Your task to perform on an android device: change text size in settings app Image 0: 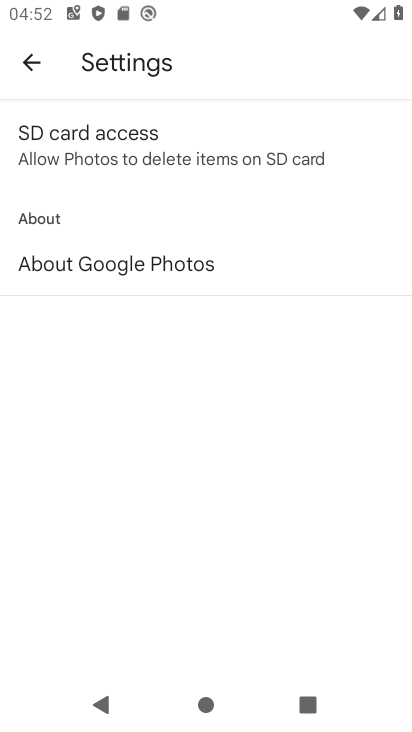
Step 0: press home button
Your task to perform on an android device: change text size in settings app Image 1: 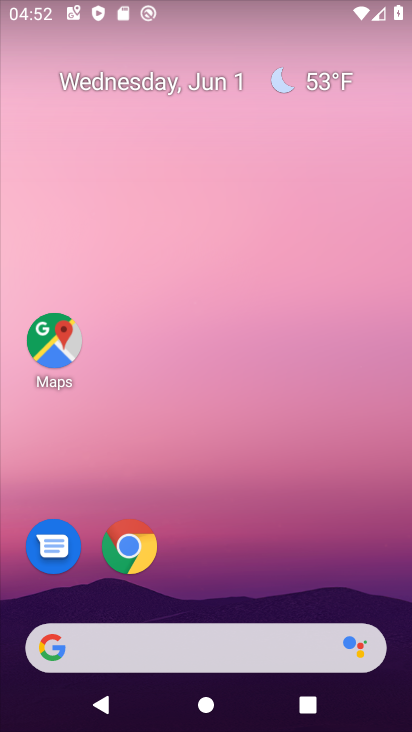
Step 1: drag from (253, 505) to (205, 153)
Your task to perform on an android device: change text size in settings app Image 2: 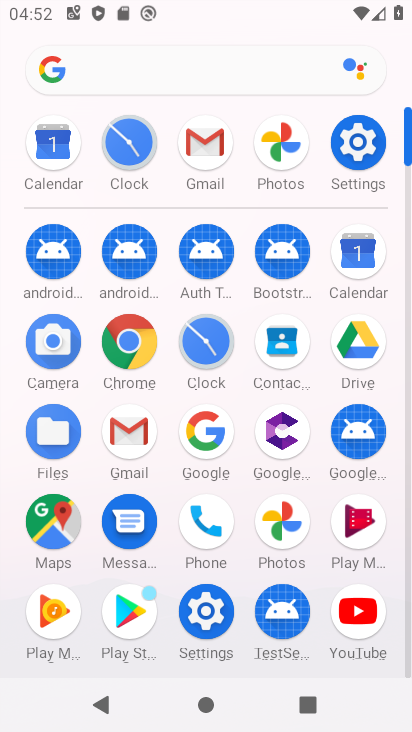
Step 2: click (360, 140)
Your task to perform on an android device: change text size in settings app Image 3: 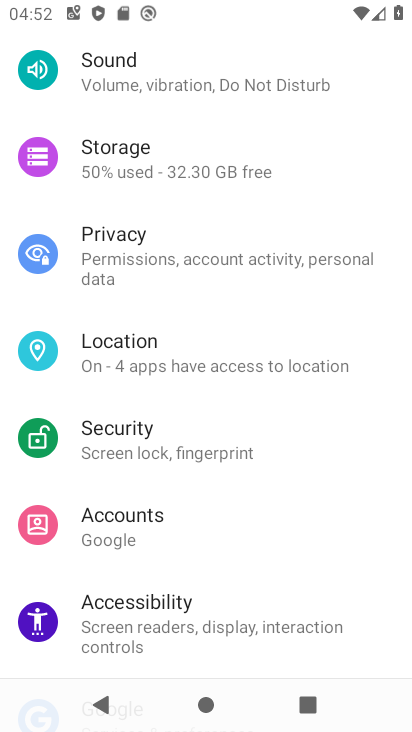
Step 3: drag from (142, 183) to (158, 528)
Your task to perform on an android device: change text size in settings app Image 4: 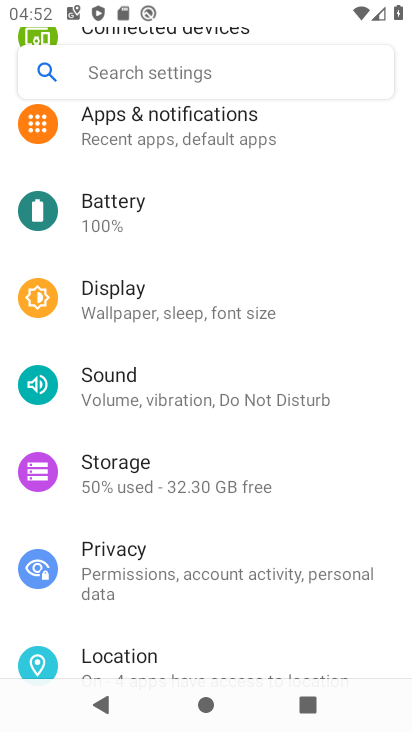
Step 4: click (98, 295)
Your task to perform on an android device: change text size in settings app Image 5: 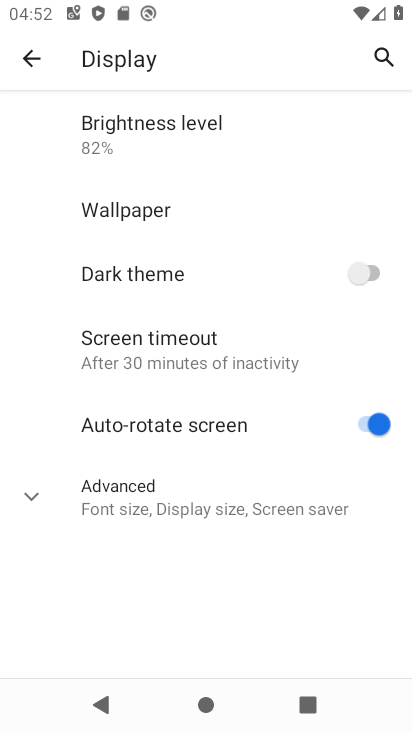
Step 5: click (79, 507)
Your task to perform on an android device: change text size in settings app Image 6: 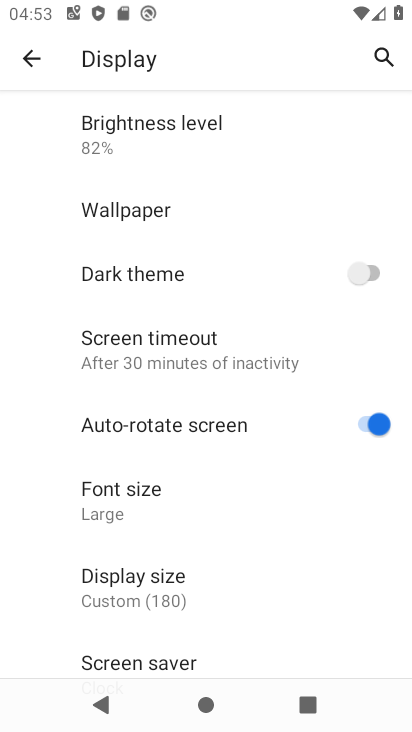
Step 6: click (123, 499)
Your task to perform on an android device: change text size in settings app Image 7: 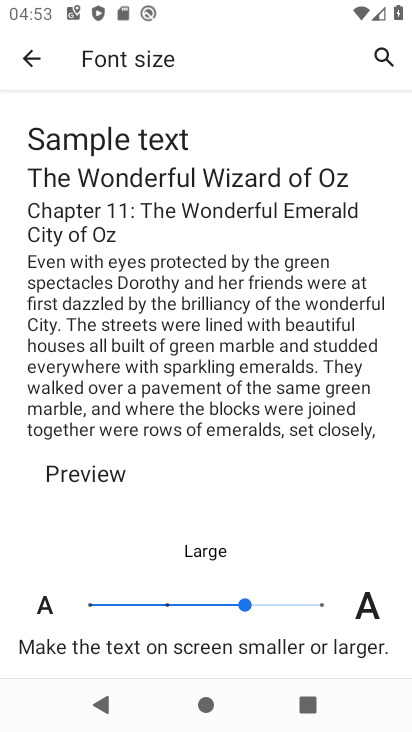
Step 7: click (281, 605)
Your task to perform on an android device: change text size in settings app Image 8: 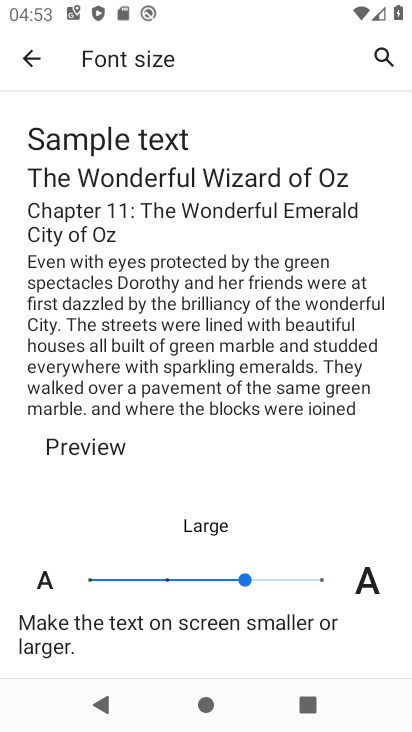
Step 8: click (285, 574)
Your task to perform on an android device: change text size in settings app Image 9: 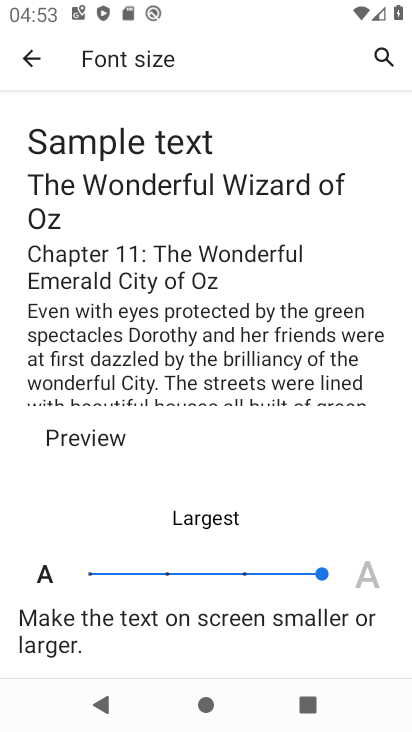
Step 9: task complete